Your task to perform on an android device: Search for sushi restaurants on Maps Image 0: 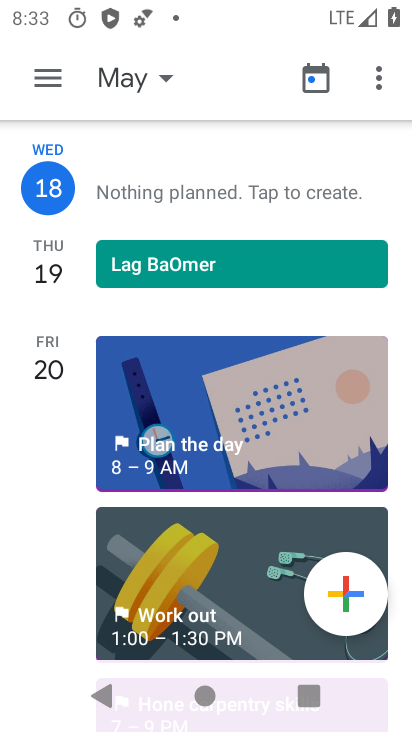
Step 0: press home button
Your task to perform on an android device: Search for sushi restaurants on Maps Image 1: 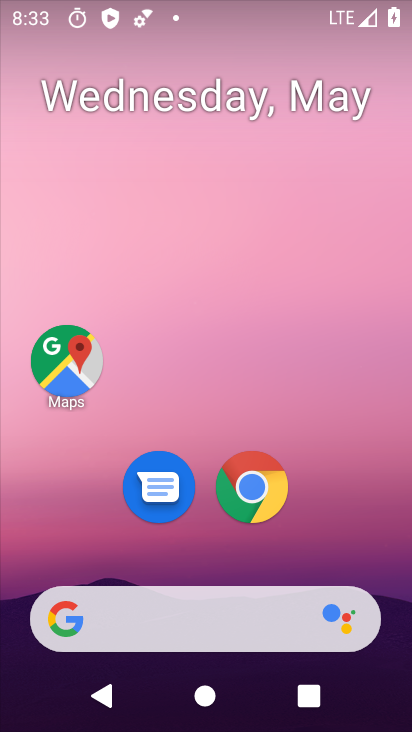
Step 1: drag from (197, 514) to (204, 85)
Your task to perform on an android device: Search for sushi restaurants on Maps Image 2: 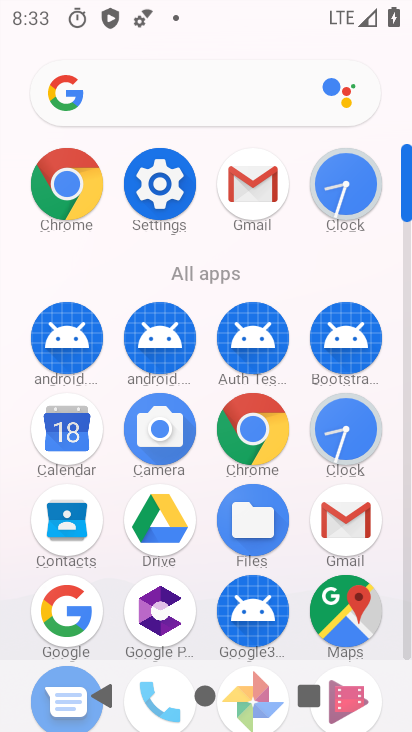
Step 2: click (322, 605)
Your task to perform on an android device: Search for sushi restaurants on Maps Image 3: 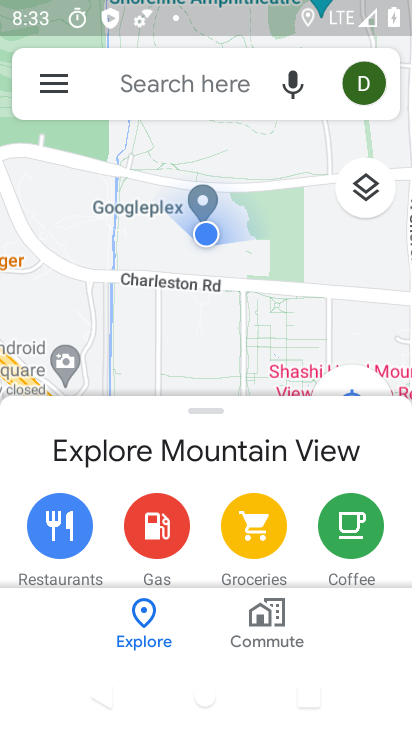
Step 3: click (164, 82)
Your task to perform on an android device: Search for sushi restaurants on Maps Image 4: 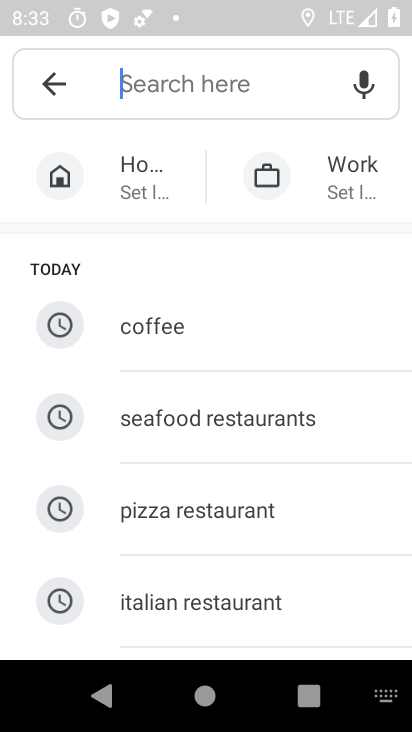
Step 4: type "sushi restaurants"
Your task to perform on an android device: Search for sushi restaurants on Maps Image 5: 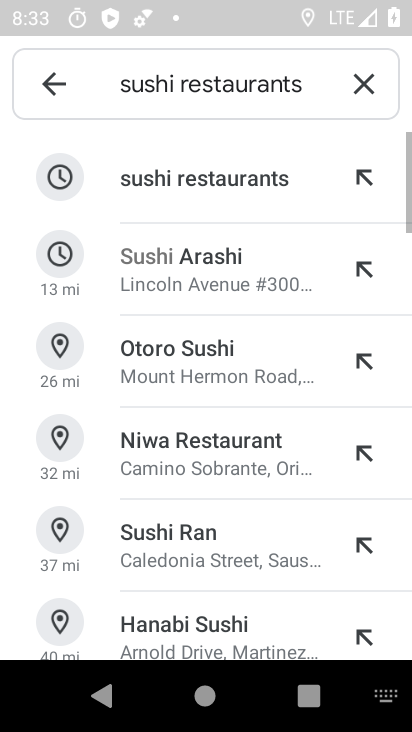
Step 5: click (167, 180)
Your task to perform on an android device: Search for sushi restaurants on Maps Image 6: 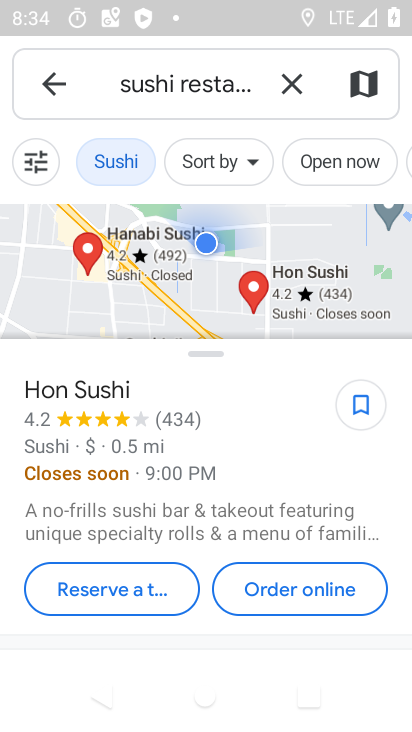
Step 6: task complete